Your task to perform on an android device: Turn off the flashlight Image 0: 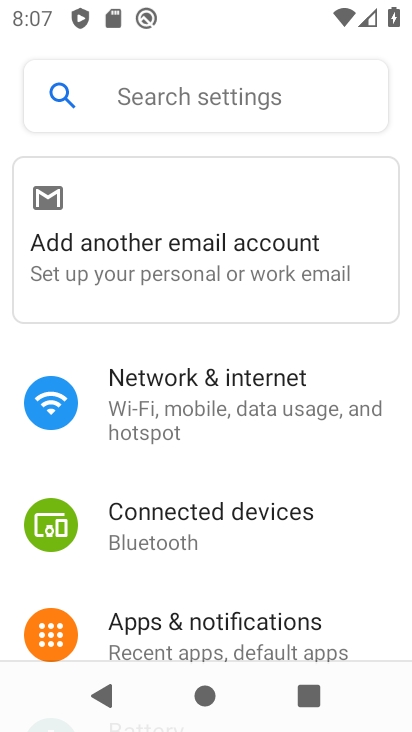
Step 0: drag from (286, 75) to (217, 351)
Your task to perform on an android device: Turn off the flashlight Image 1: 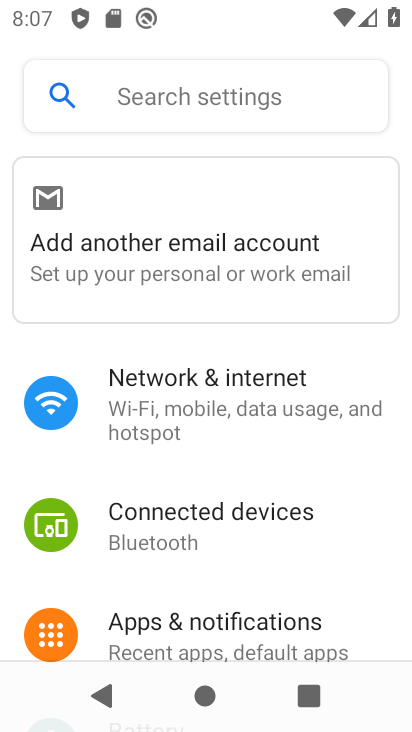
Step 1: task complete